Your task to perform on an android device: Go to network settings Image 0: 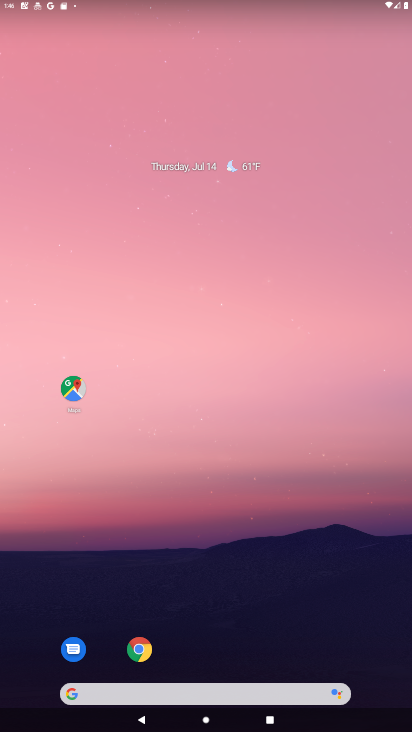
Step 0: drag from (265, 678) to (326, 116)
Your task to perform on an android device: Go to network settings Image 1: 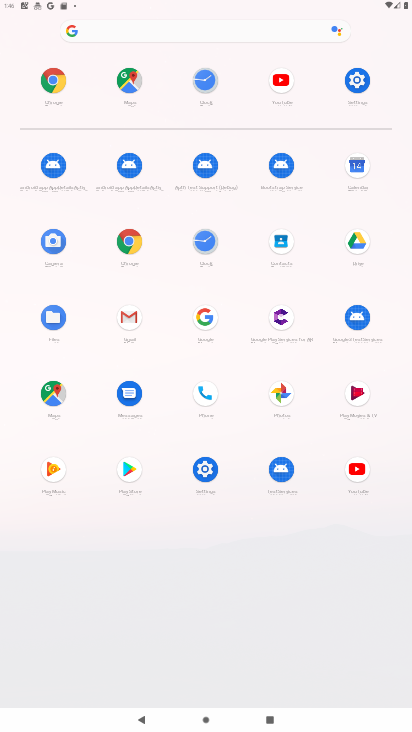
Step 1: click (358, 73)
Your task to perform on an android device: Go to network settings Image 2: 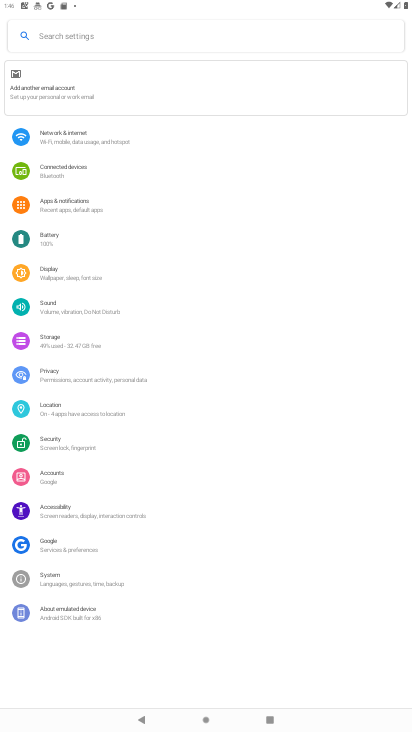
Step 2: click (153, 131)
Your task to perform on an android device: Go to network settings Image 3: 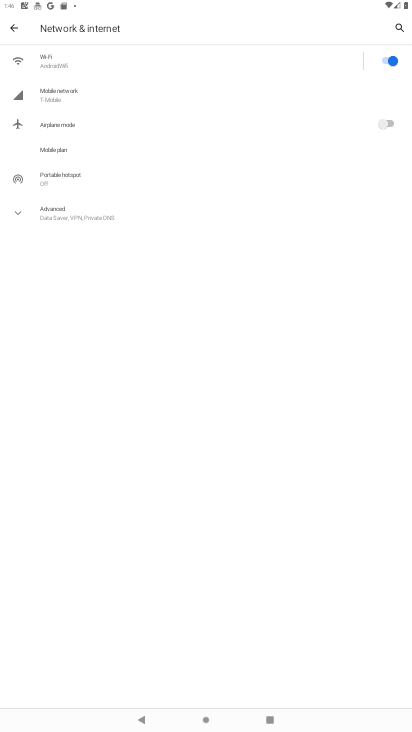
Step 3: task complete